Your task to perform on an android device: When is my next meeting? Image 0: 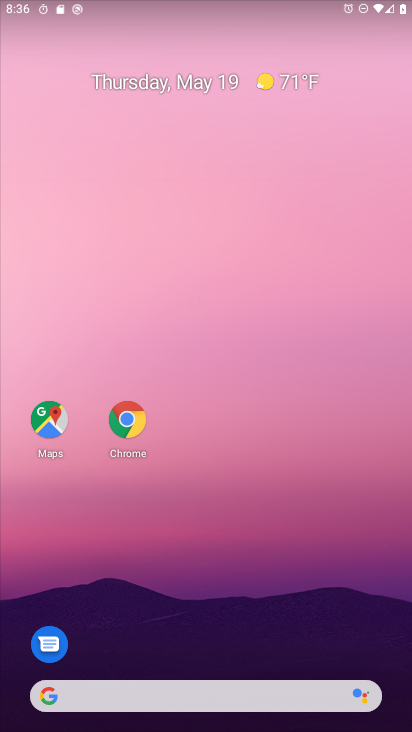
Step 0: drag from (183, 680) to (251, 243)
Your task to perform on an android device: When is my next meeting? Image 1: 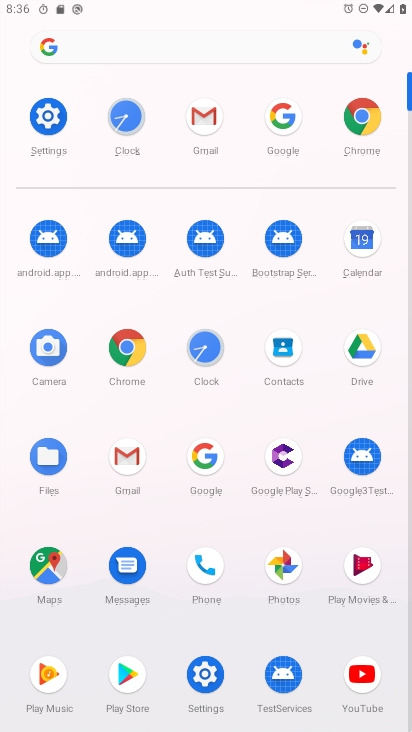
Step 1: click (361, 245)
Your task to perform on an android device: When is my next meeting? Image 2: 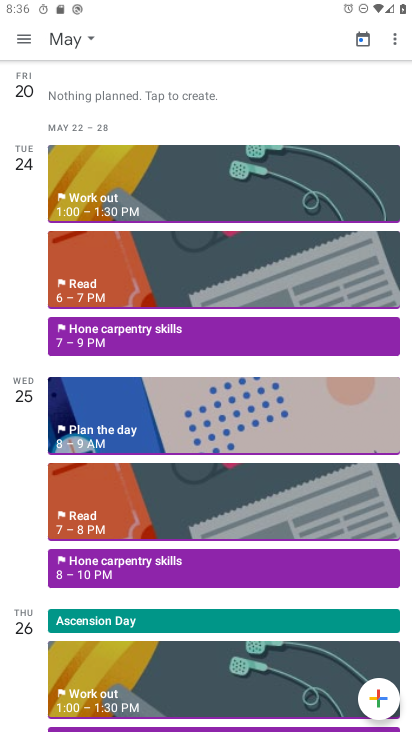
Step 2: click (89, 36)
Your task to perform on an android device: When is my next meeting? Image 3: 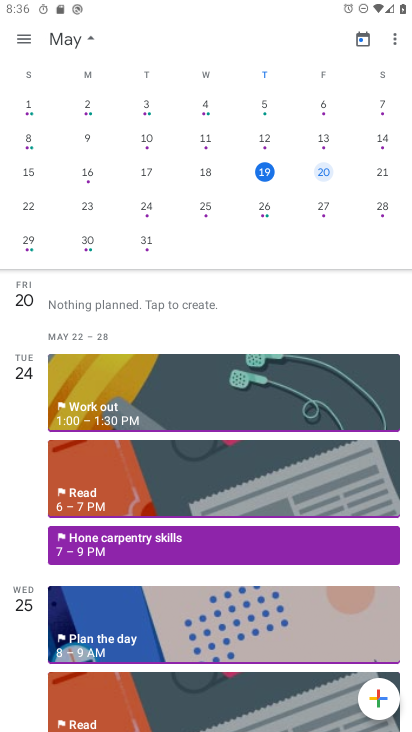
Step 3: drag from (364, 181) to (38, 194)
Your task to perform on an android device: When is my next meeting? Image 4: 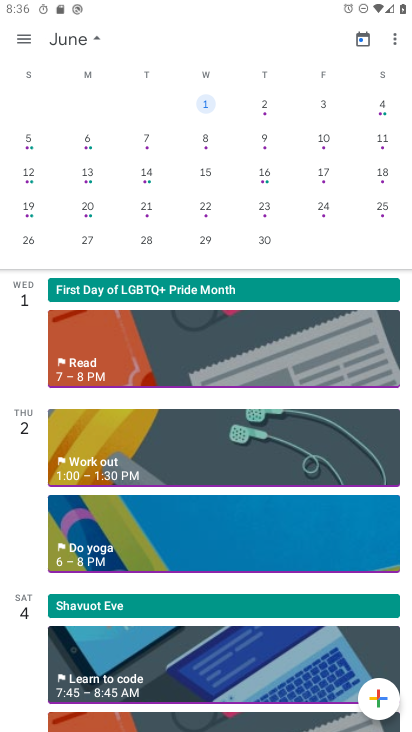
Step 4: drag from (76, 198) to (404, 211)
Your task to perform on an android device: When is my next meeting? Image 5: 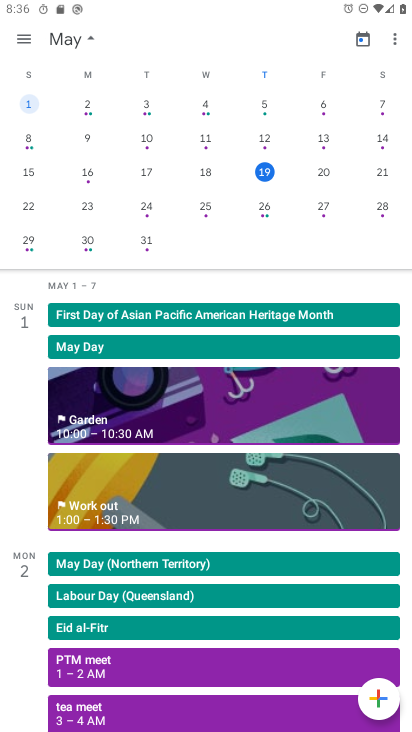
Step 5: click (330, 173)
Your task to perform on an android device: When is my next meeting? Image 6: 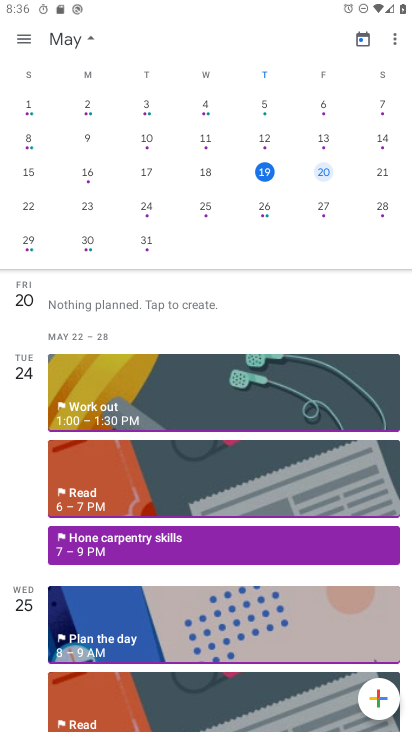
Step 6: click (127, 398)
Your task to perform on an android device: When is my next meeting? Image 7: 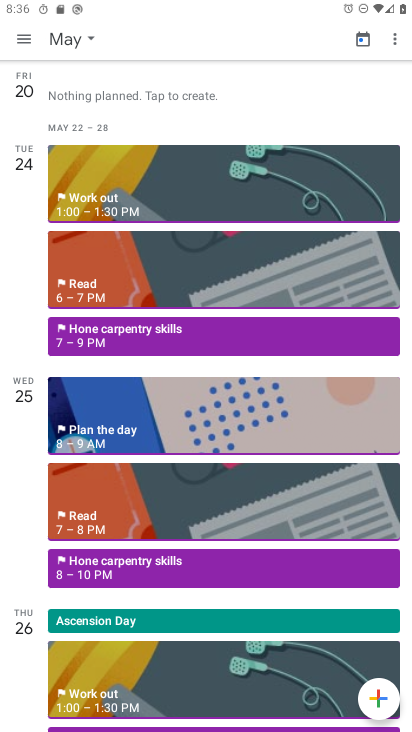
Step 7: click (99, 82)
Your task to perform on an android device: When is my next meeting? Image 8: 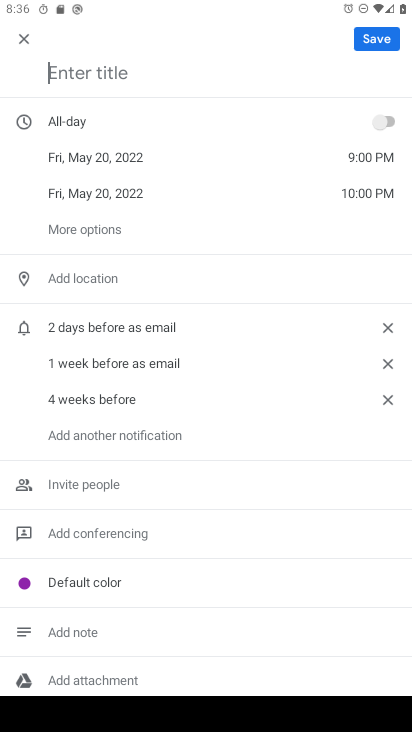
Step 8: task complete